Your task to perform on an android device: Search for a custom made wallet Image 0: 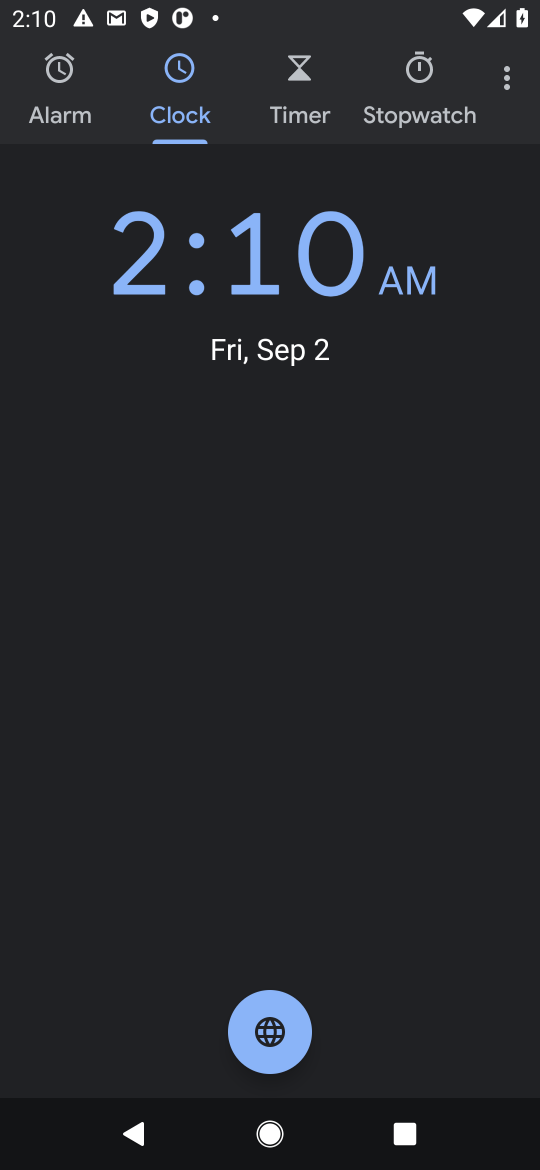
Step 0: press home button
Your task to perform on an android device: Search for a custom made wallet Image 1: 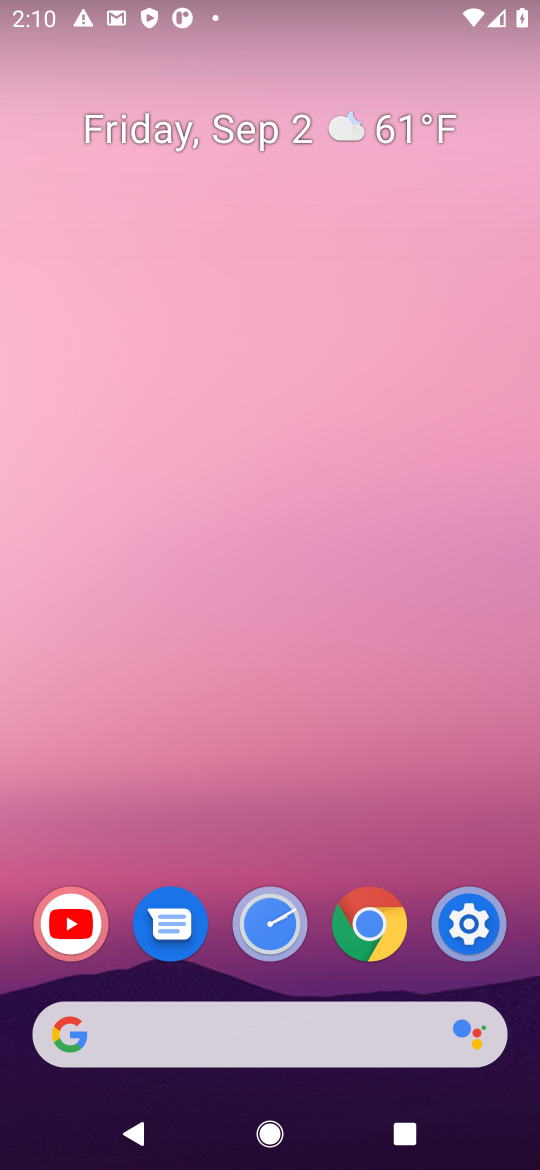
Step 1: click (383, 1036)
Your task to perform on an android device: Search for a custom made wallet Image 2: 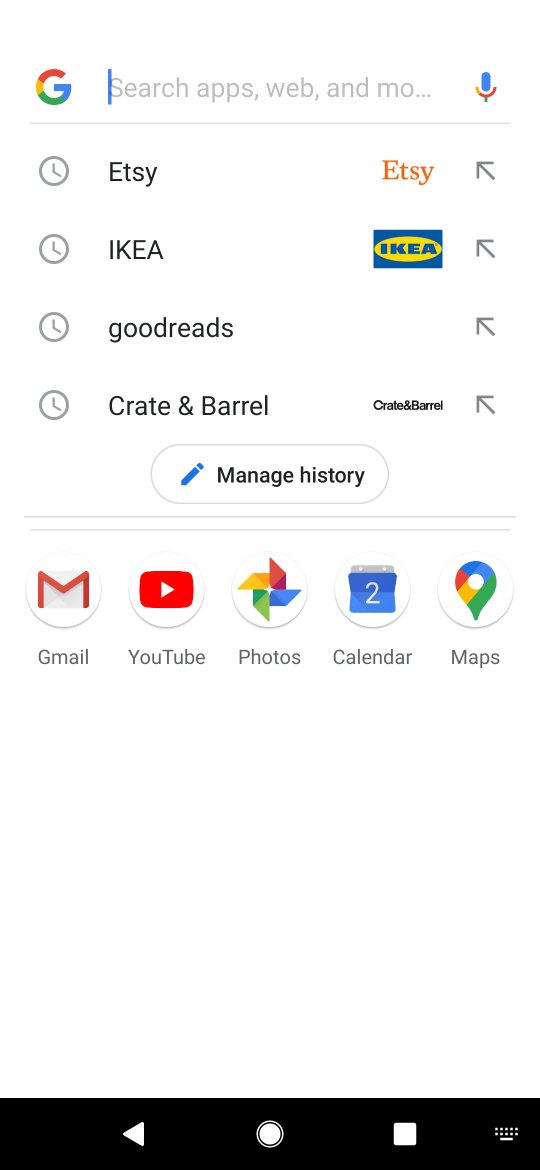
Step 2: press enter
Your task to perform on an android device: Search for a custom made wallet Image 3: 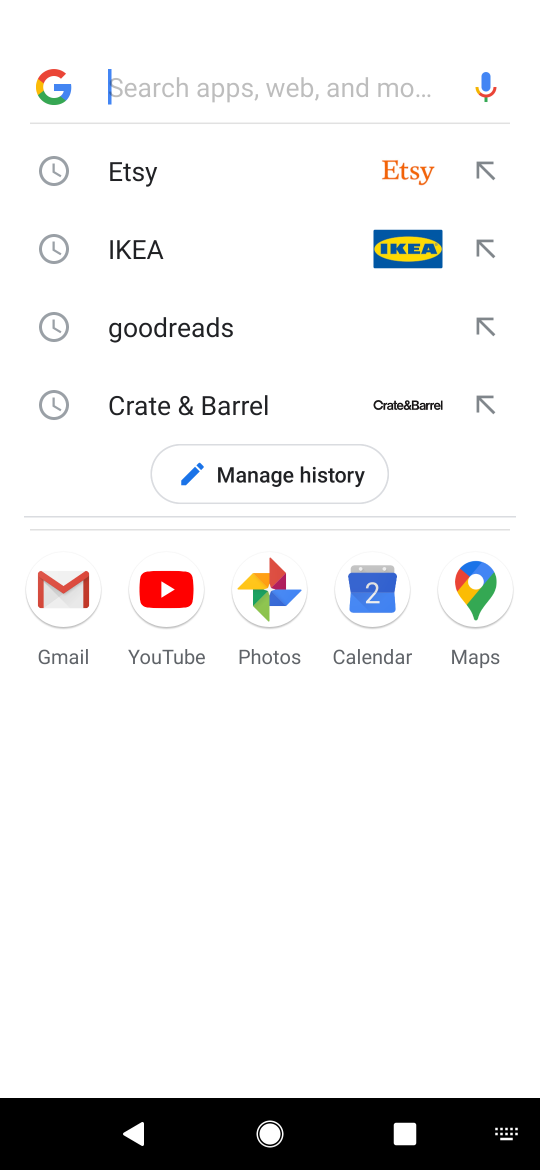
Step 3: type "custom made wallet"
Your task to perform on an android device: Search for a custom made wallet Image 4: 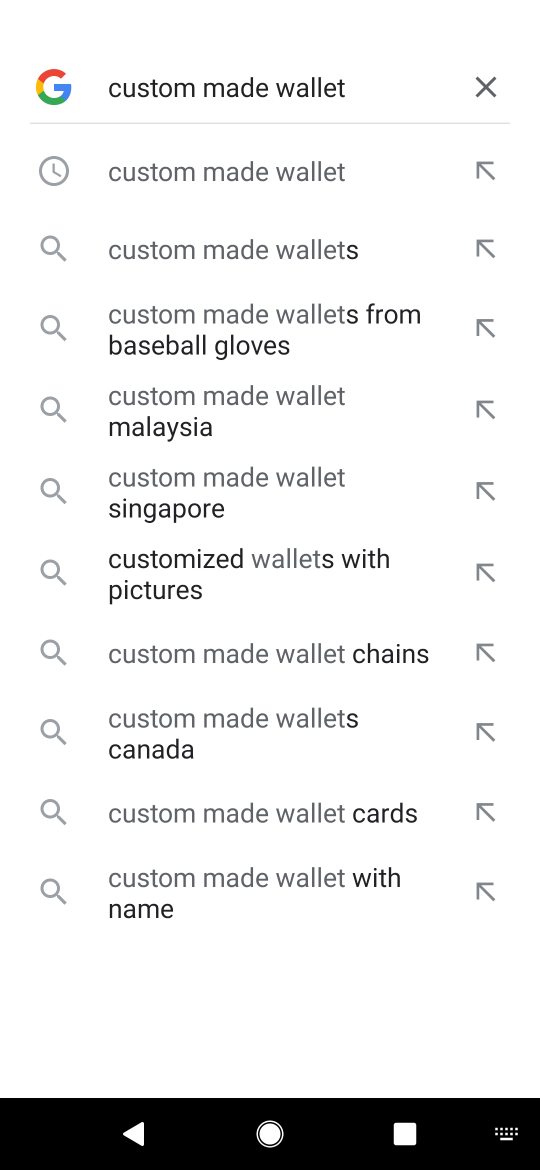
Step 4: click (349, 173)
Your task to perform on an android device: Search for a custom made wallet Image 5: 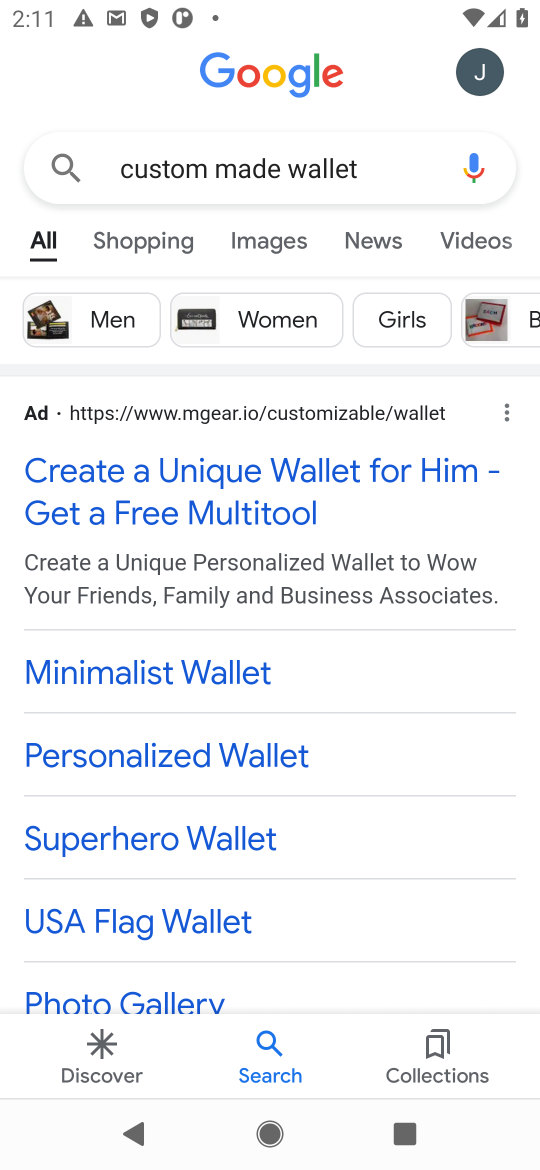
Step 5: task complete